Your task to perform on an android device: What's the weather going to be tomorrow? Image 0: 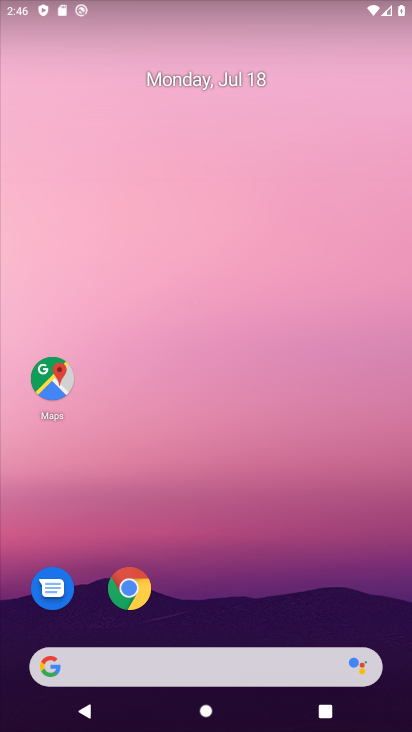
Step 0: click (225, 660)
Your task to perform on an android device: What's the weather going to be tomorrow? Image 1: 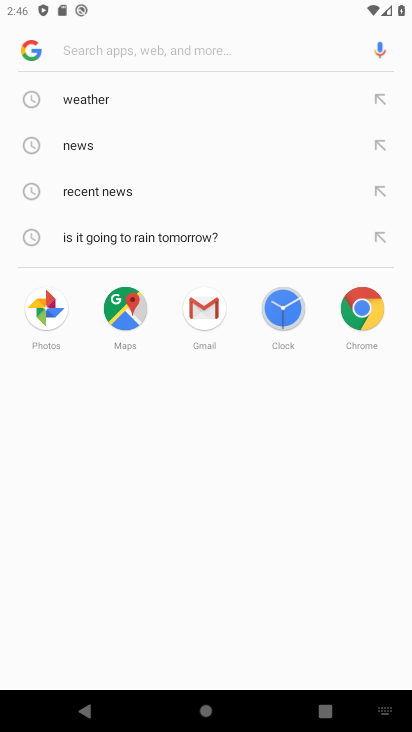
Step 1: click (159, 87)
Your task to perform on an android device: What's the weather going to be tomorrow? Image 2: 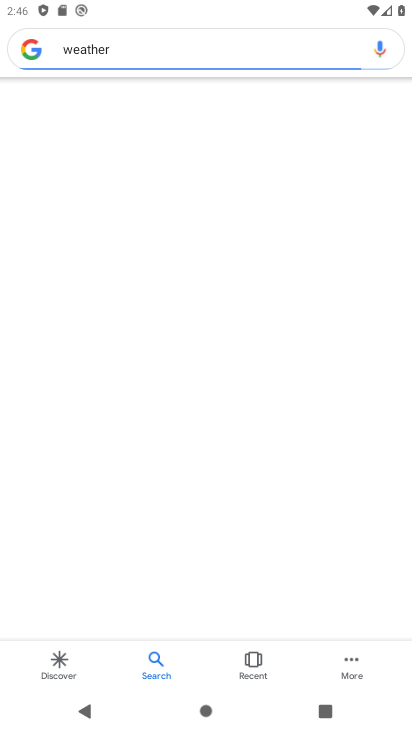
Step 2: task complete